Your task to perform on an android device: open a new tab in the chrome app Image 0: 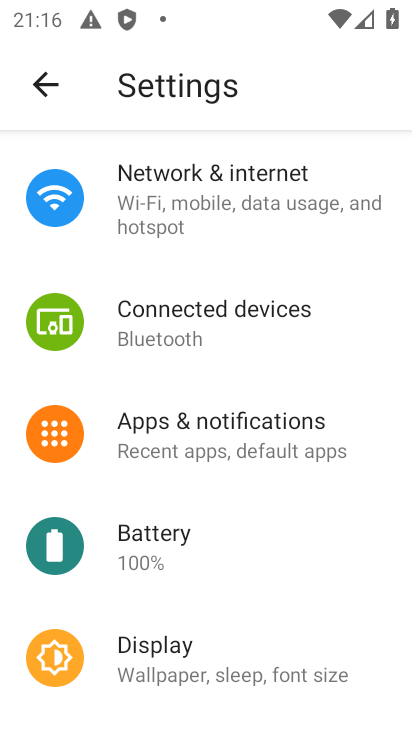
Step 0: press home button
Your task to perform on an android device: open a new tab in the chrome app Image 1: 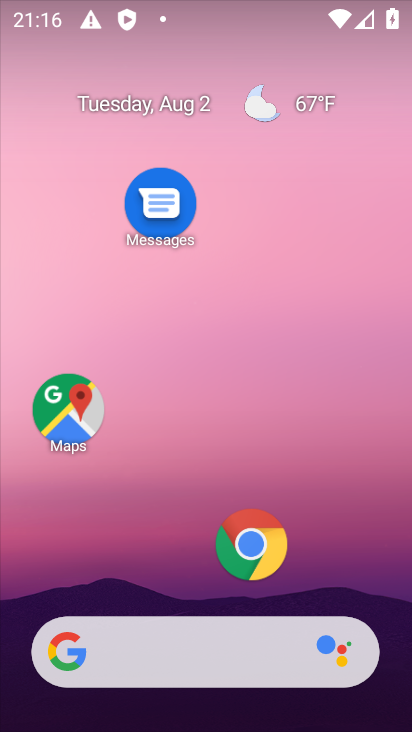
Step 1: click (224, 537)
Your task to perform on an android device: open a new tab in the chrome app Image 2: 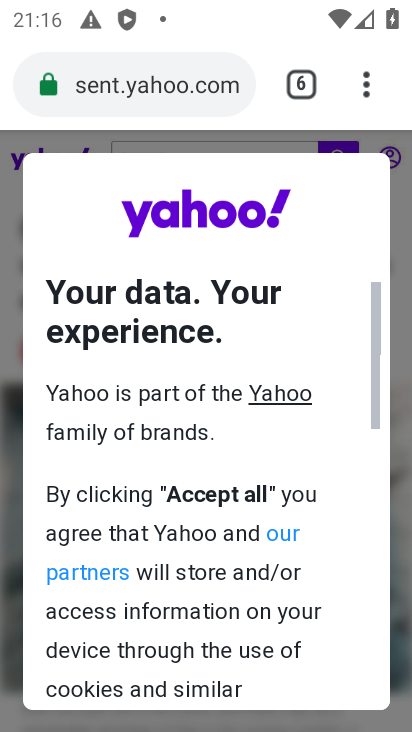
Step 2: click (313, 84)
Your task to perform on an android device: open a new tab in the chrome app Image 3: 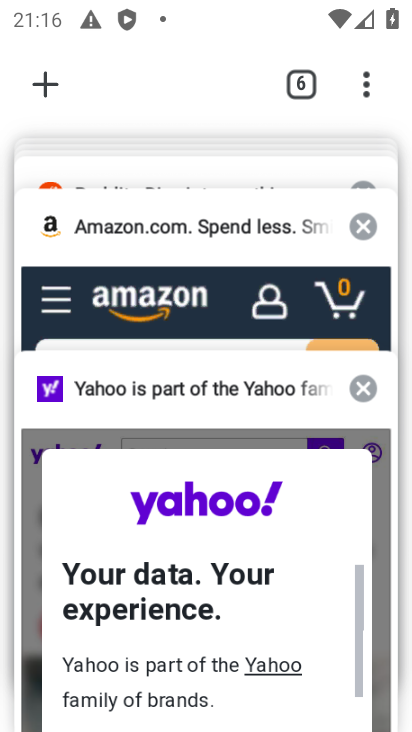
Step 3: click (49, 82)
Your task to perform on an android device: open a new tab in the chrome app Image 4: 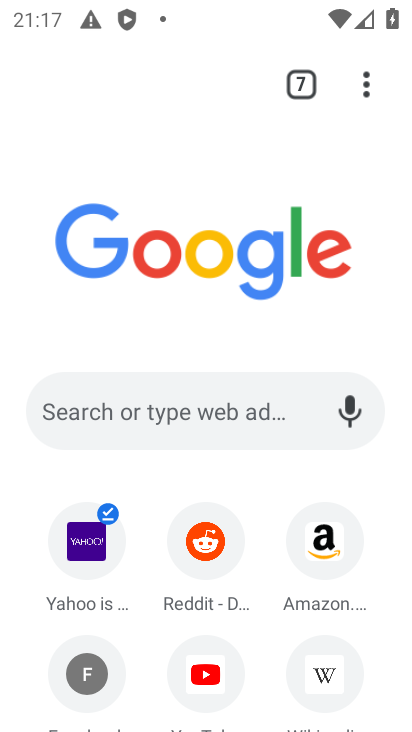
Step 4: task complete